Your task to perform on an android device: find which apps use the phone's location Image 0: 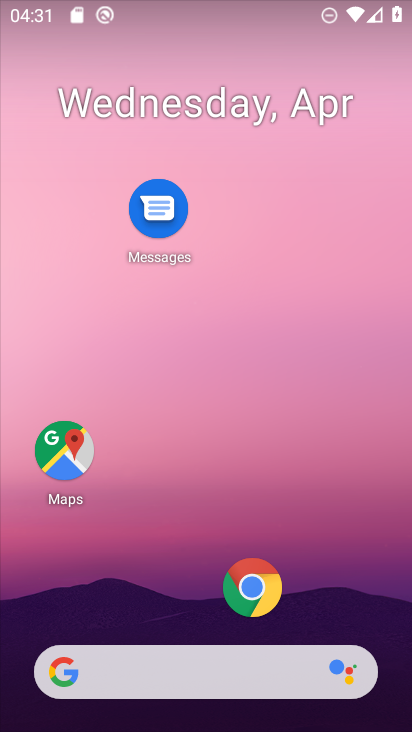
Step 0: drag from (207, 602) to (197, 184)
Your task to perform on an android device: find which apps use the phone's location Image 1: 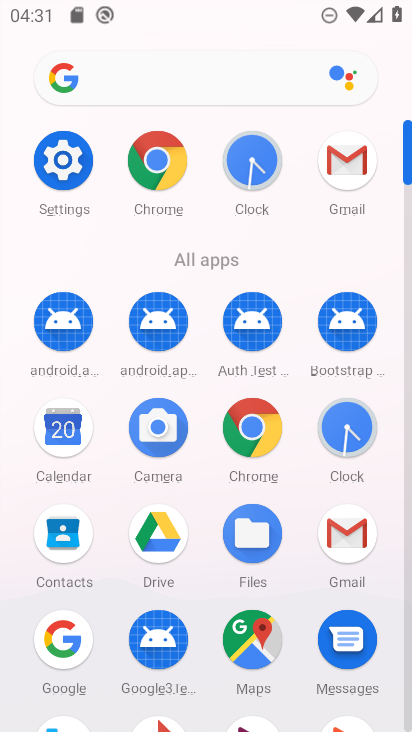
Step 1: click (69, 175)
Your task to perform on an android device: find which apps use the phone's location Image 2: 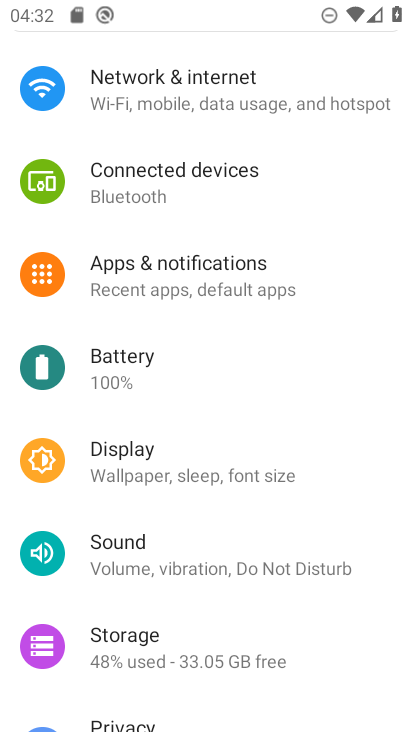
Step 2: drag from (195, 625) to (233, 323)
Your task to perform on an android device: find which apps use the phone's location Image 3: 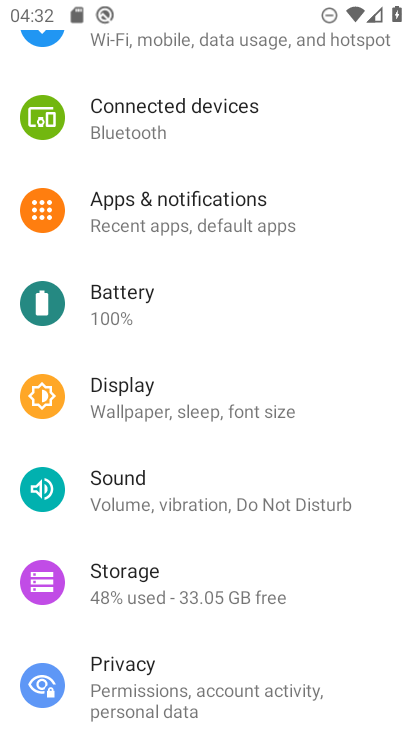
Step 3: drag from (150, 581) to (232, 281)
Your task to perform on an android device: find which apps use the phone's location Image 4: 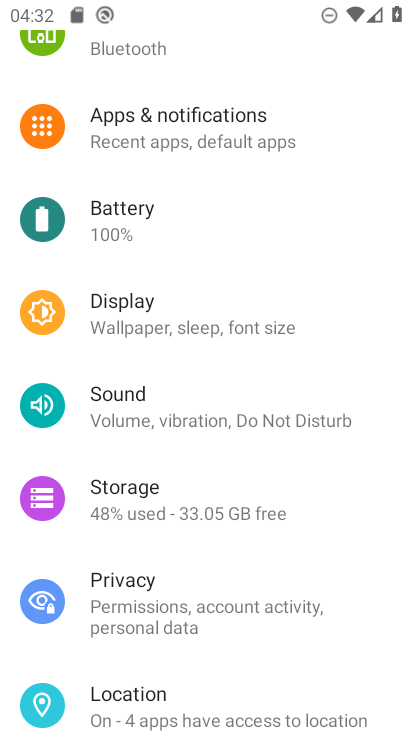
Step 4: drag from (202, 619) to (216, 353)
Your task to perform on an android device: find which apps use the phone's location Image 5: 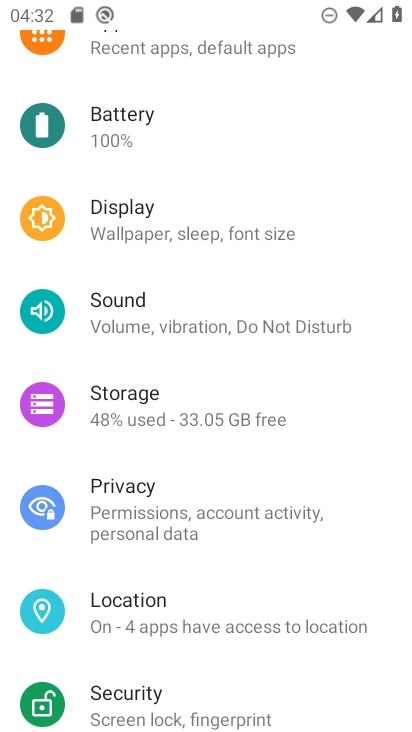
Step 5: click (179, 604)
Your task to perform on an android device: find which apps use the phone's location Image 6: 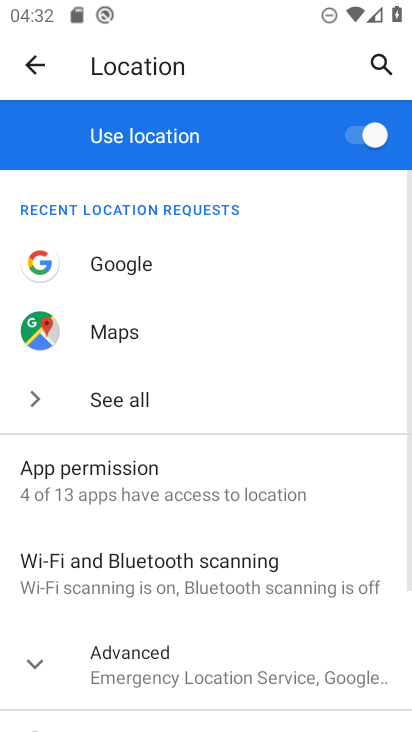
Step 6: drag from (247, 544) to (260, 313)
Your task to perform on an android device: find which apps use the phone's location Image 7: 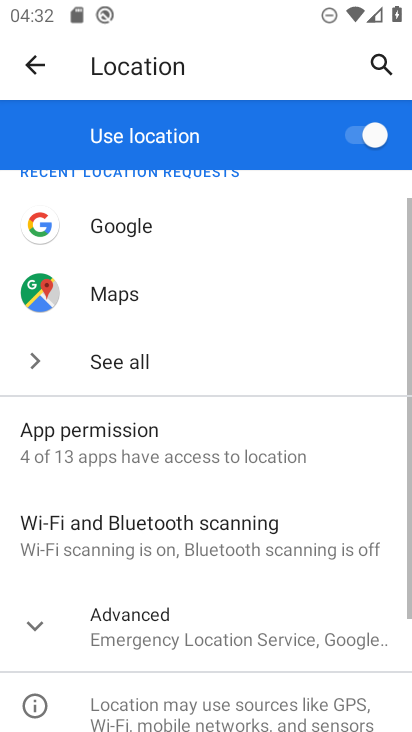
Step 7: drag from (274, 577) to (277, 343)
Your task to perform on an android device: find which apps use the phone's location Image 8: 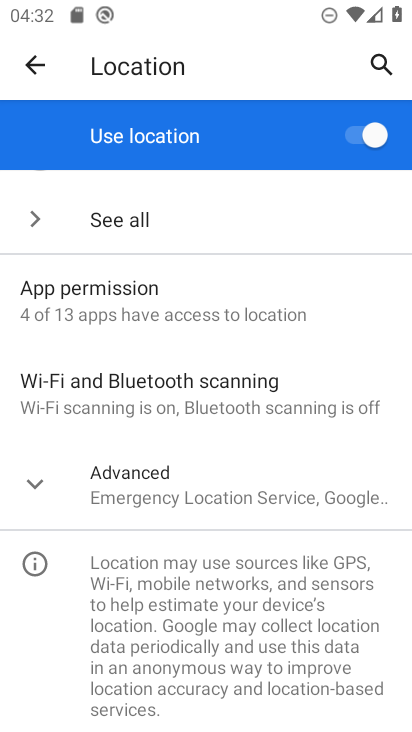
Step 8: click (134, 319)
Your task to perform on an android device: find which apps use the phone's location Image 9: 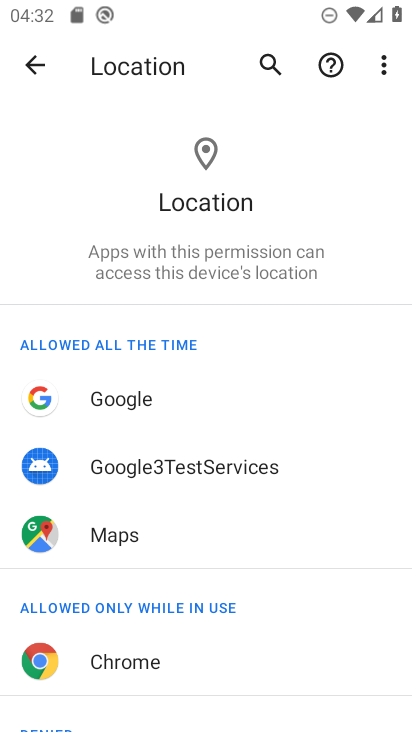
Step 9: task complete